Your task to perform on an android device: install app "Google Chat" Image 0: 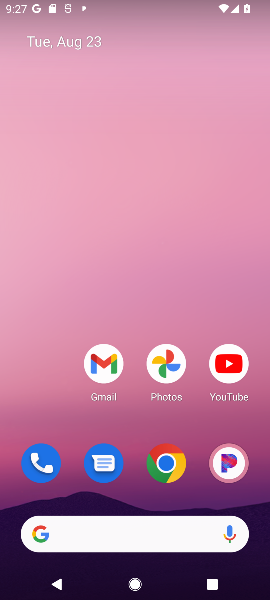
Step 0: press home button
Your task to perform on an android device: install app "Google Chat" Image 1: 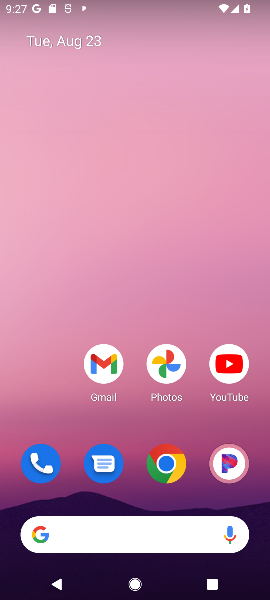
Step 1: drag from (131, 435) to (128, 53)
Your task to perform on an android device: install app "Google Chat" Image 2: 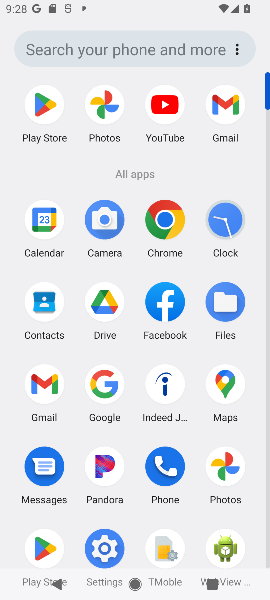
Step 2: click (40, 101)
Your task to perform on an android device: install app "Google Chat" Image 3: 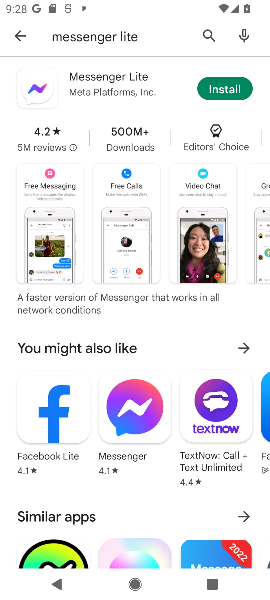
Step 3: click (206, 30)
Your task to perform on an android device: install app "Google Chat" Image 4: 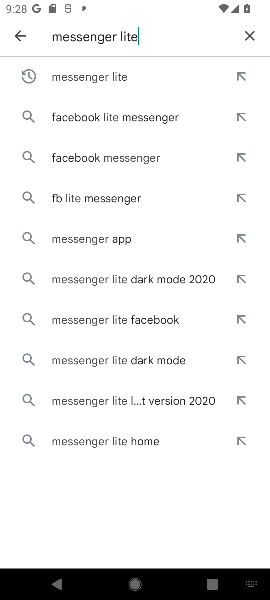
Step 4: click (247, 39)
Your task to perform on an android device: install app "Google Chat" Image 5: 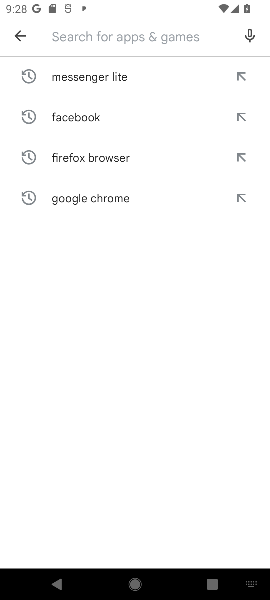
Step 5: type "Google Chat"
Your task to perform on an android device: install app "Google Chat" Image 6: 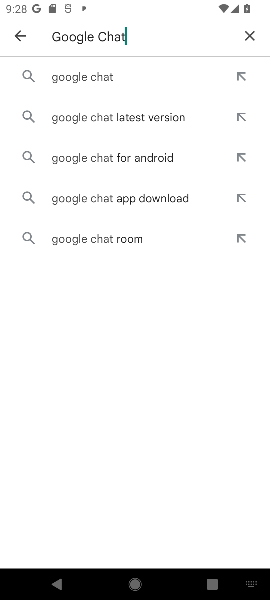
Step 6: click (122, 75)
Your task to perform on an android device: install app "Google Chat" Image 7: 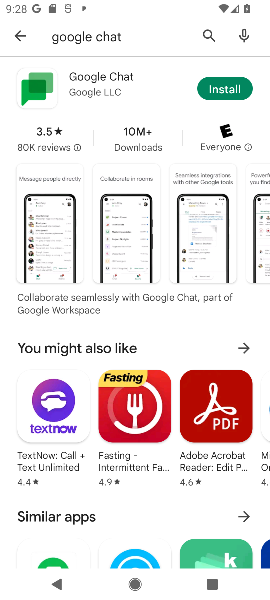
Step 7: click (226, 86)
Your task to perform on an android device: install app "Google Chat" Image 8: 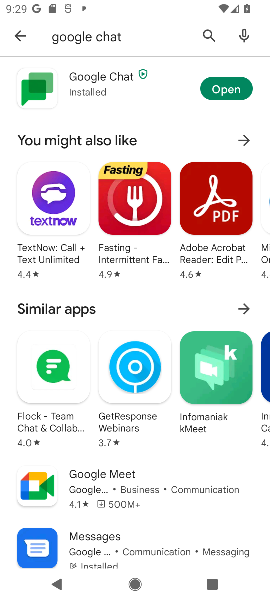
Step 8: click (226, 86)
Your task to perform on an android device: install app "Google Chat" Image 9: 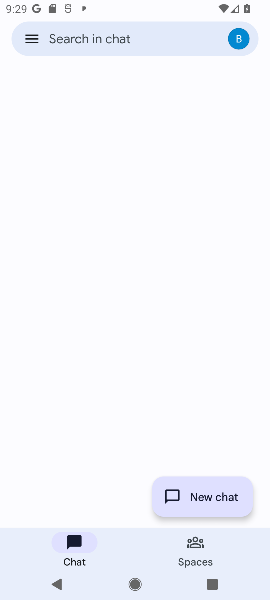
Step 9: task complete